Your task to perform on an android device: refresh tabs in the chrome app Image 0: 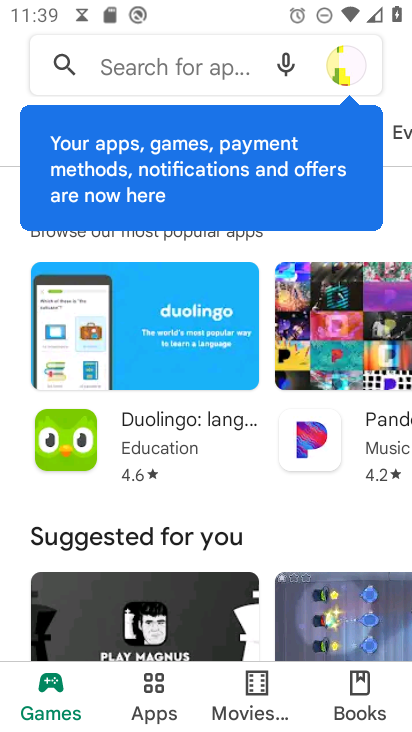
Step 0: press back button
Your task to perform on an android device: refresh tabs in the chrome app Image 1: 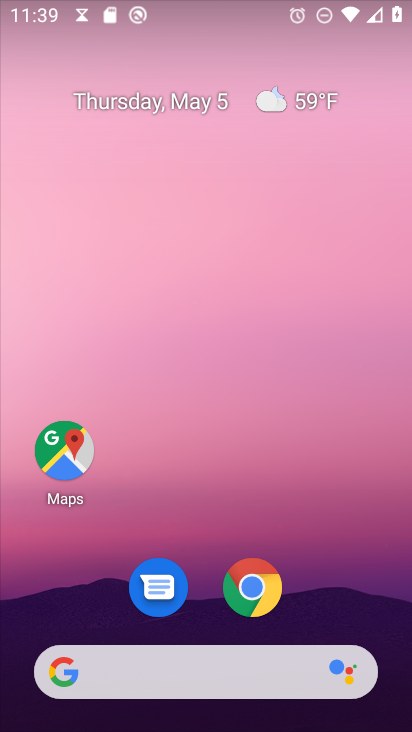
Step 1: click (244, 577)
Your task to perform on an android device: refresh tabs in the chrome app Image 2: 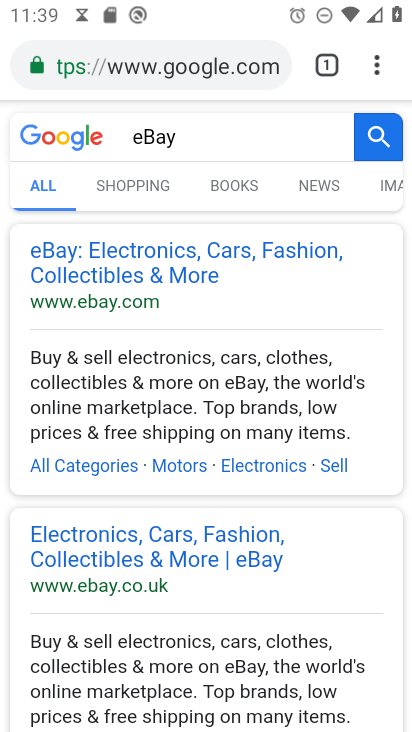
Step 2: click (369, 68)
Your task to perform on an android device: refresh tabs in the chrome app Image 3: 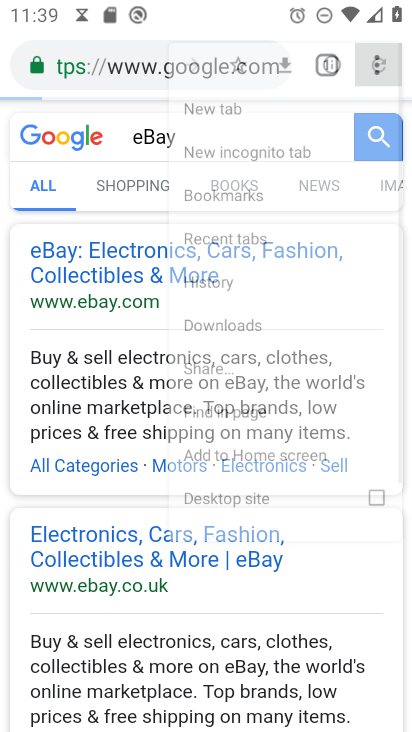
Step 3: click (368, 66)
Your task to perform on an android device: refresh tabs in the chrome app Image 4: 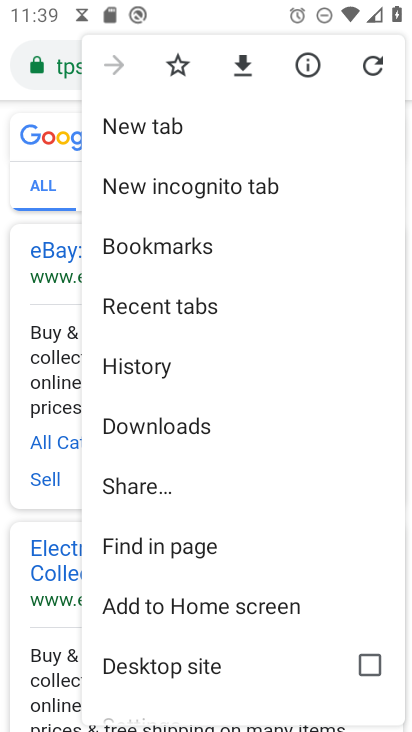
Step 4: task complete